Your task to perform on an android device: Open the web browser Image 0: 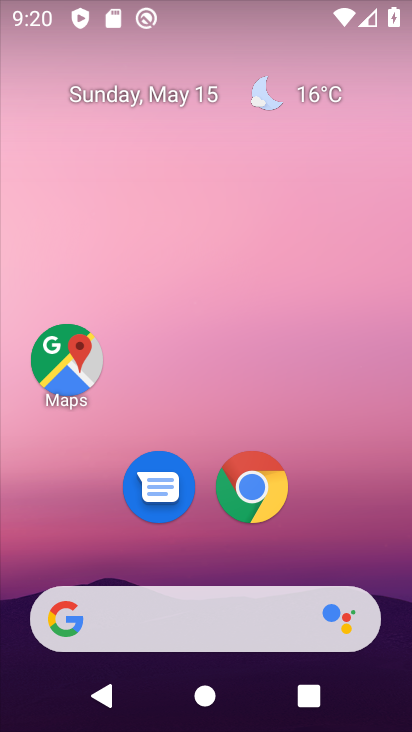
Step 0: click (242, 482)
Your task to perform on an android device: Open the web browser Image 1: 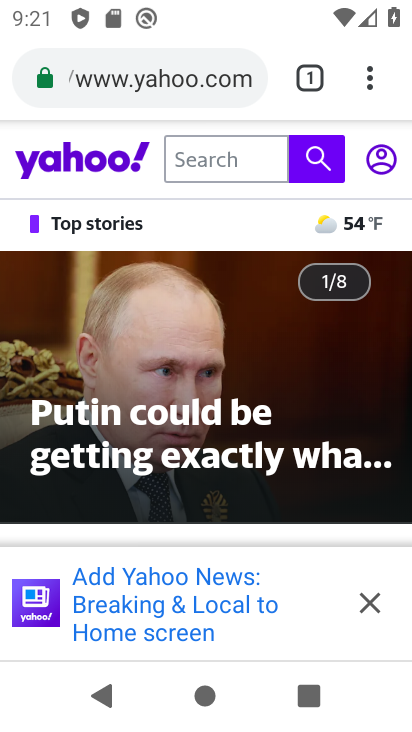
Step 1: task complete